Your task to perform on an android device: clear all cookies in the chrome app Image 0: 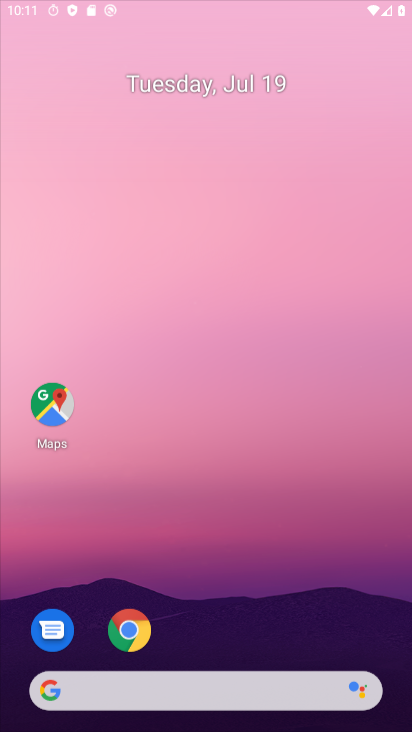
Step 0: press home button
Your task to perform on an android device: clear all cookies in the chrome app Image 1: 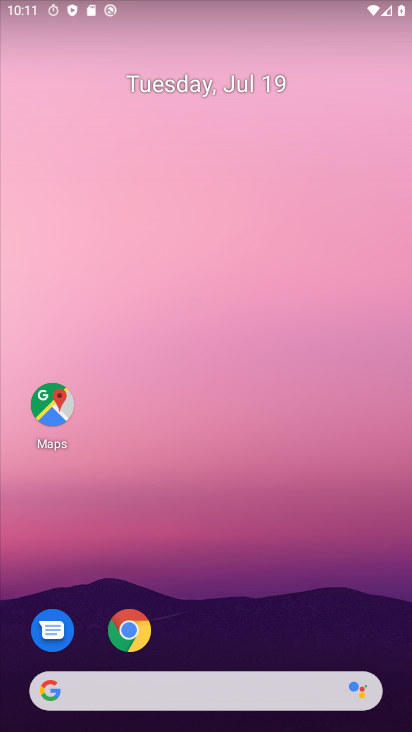
Step 1: drag from (271, 632) to (331, 168)
Your task to perform on an android device: clear all cookies in the chrome app Image 2: 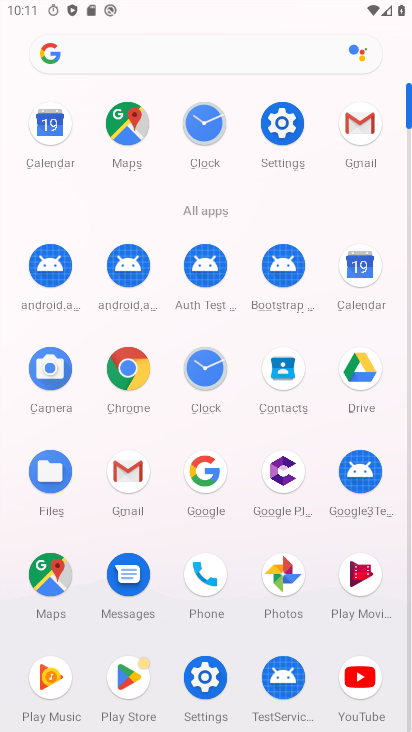
Step 2: click (124, 378)
Your task to perform on an android device: clear all cookies in the chrome app Image 3: 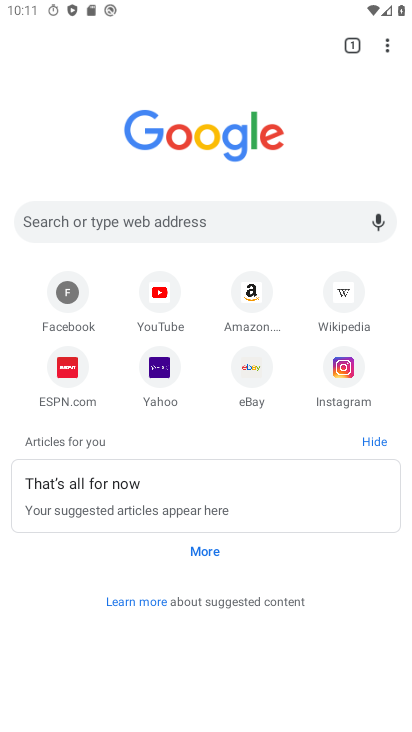
Step 3: drag from (390, 42) to (237, 377)
Your task to perform on an android device: clear all cookies in the chrome app Image 4: 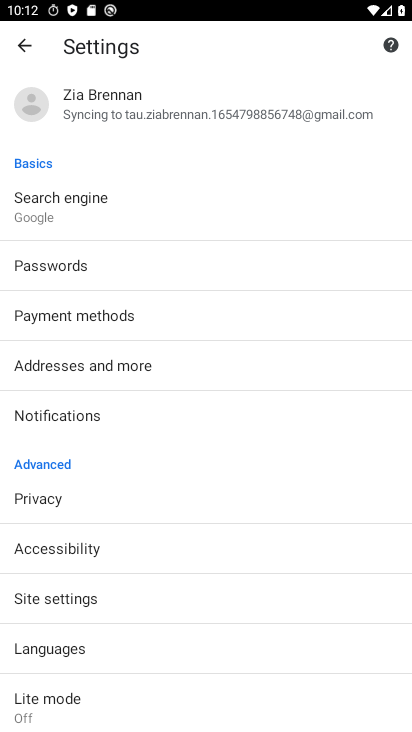
Step 4: click (43, 503)
Your task to perform on an android device: clear all cookies in the chrome app Image 5: 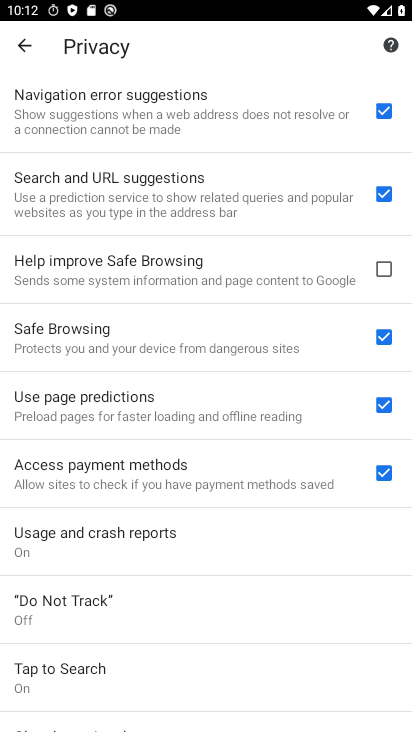
Step 5: drag from (185, 660) to (250, 166)
Your task to perform on an android device: clear all cookies in the chrome app Image 6: 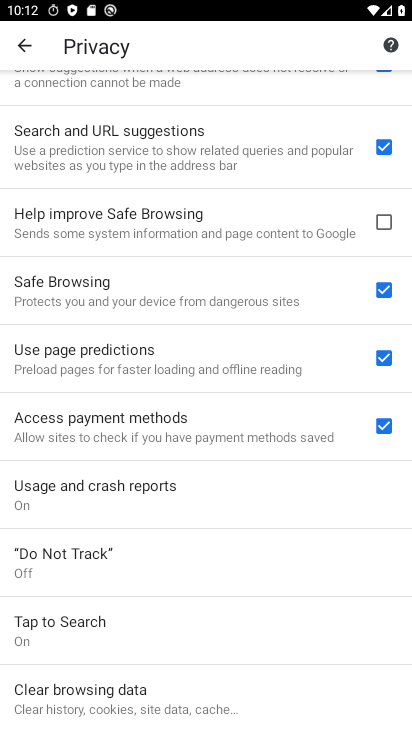
Step 6: click (60, 695)
Your task to perform on an android device: clear all cookies in the chrome app Image 7: 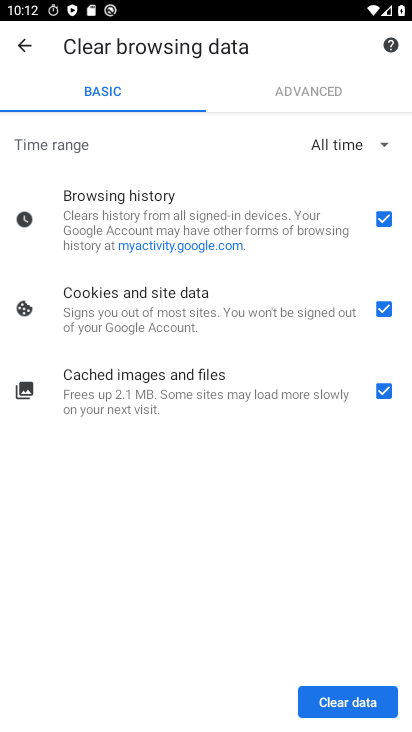
Step 7: click (386, 221)
Your task to perform on an android device: clear all cookies in the chrome app Image 8: 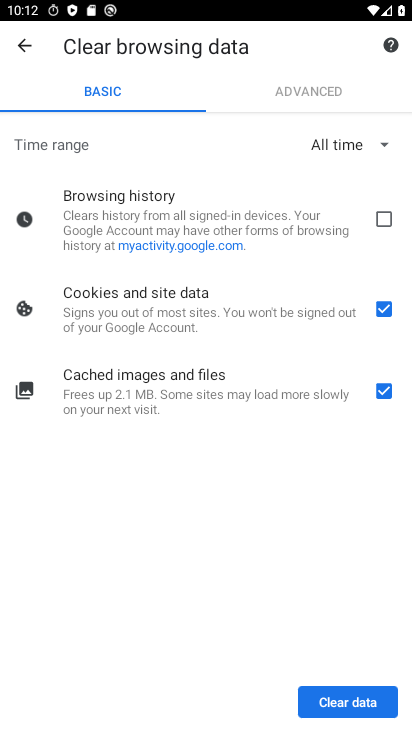
Step 8: click (382, 387)
Your task to perform on an android device: clear all cookies in the chrome app Image 9: 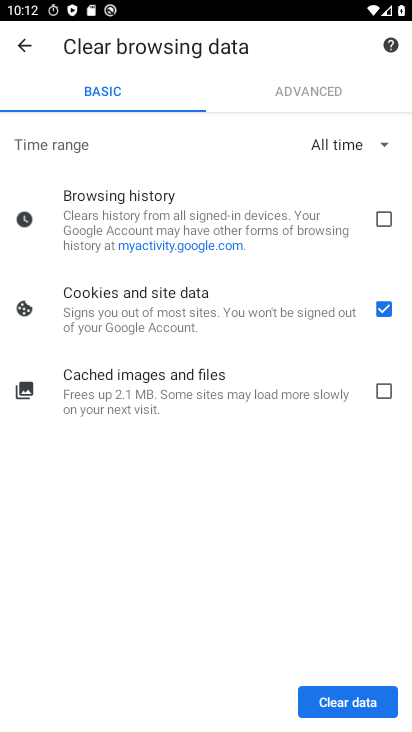
Step 9: click (362, 698)
Your task to perform on an android device: clear all cookies in the chrome app Image 10: 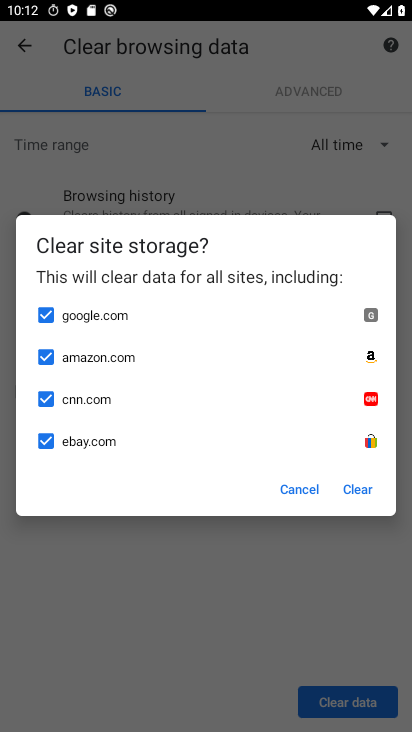
Step 10: click (359, 492)
Your task to perform on an android device: clear all cookies in the chrome app Image 11: 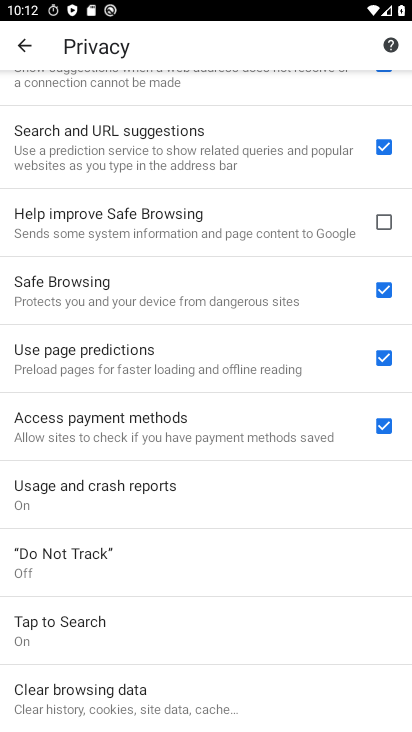
Step 11: task complete